Your task to perform on an android device: all mails in gmail Image 0: 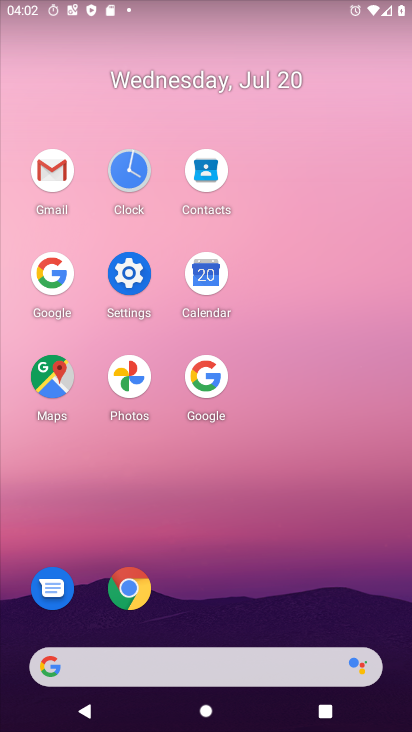
Step 0: click (43, 181)
Your task to perform on an android device: all mails in gmail Image 1: 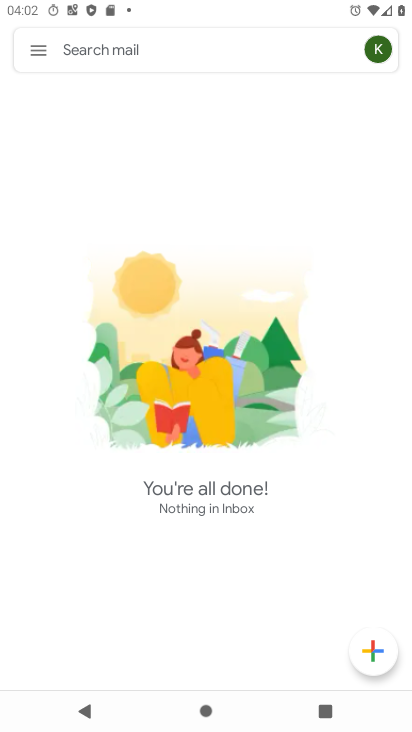
Step 1: task complete